Your task to perform on an android device: star an email in the gmail app Image 0: 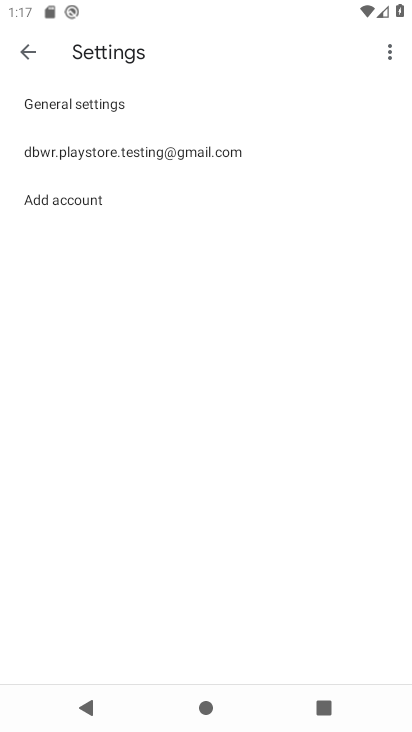
Step 0: press home button
Your task to perform on an android device: star an email in the gmail app Image 1: 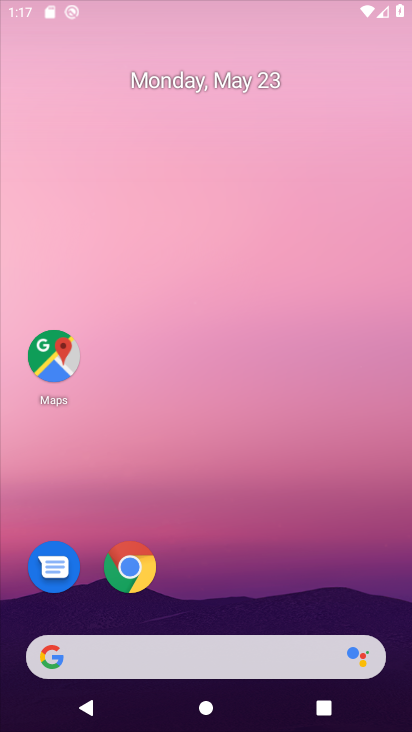
Step 1: drag from (268, 555) to (318, 207)
Your task to perform on an android device: star an email in the gmail app Image 2: 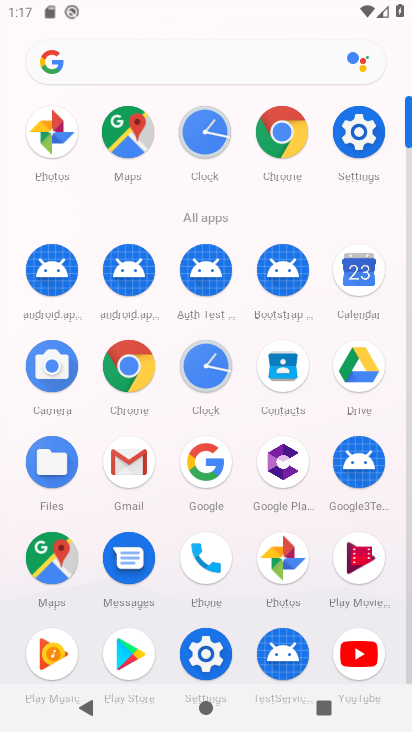
Step 2: click (129, 470)
Your task to perform on an android device: star an email in the gmail app Image 3: 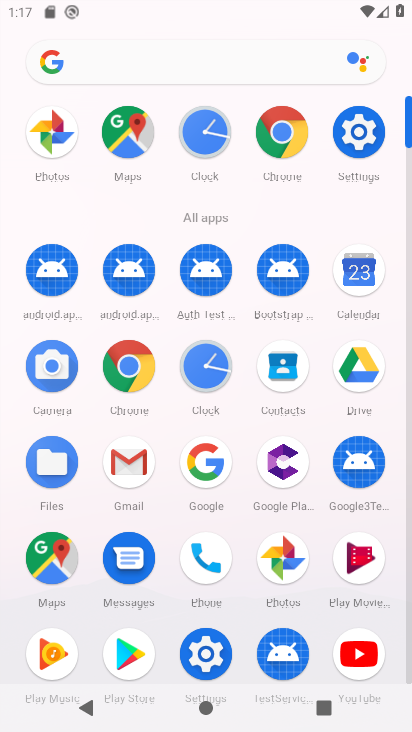
Step 3: click (129, 470)
Your task to perform on an android device: star an email in the gmail app Image 4: 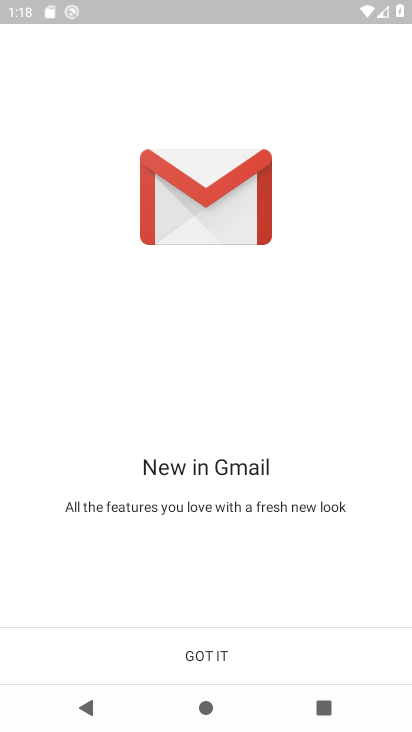
Step 4: click (209, 660)
Your task to perform on an android device: star an email in the gmail app Image 5: 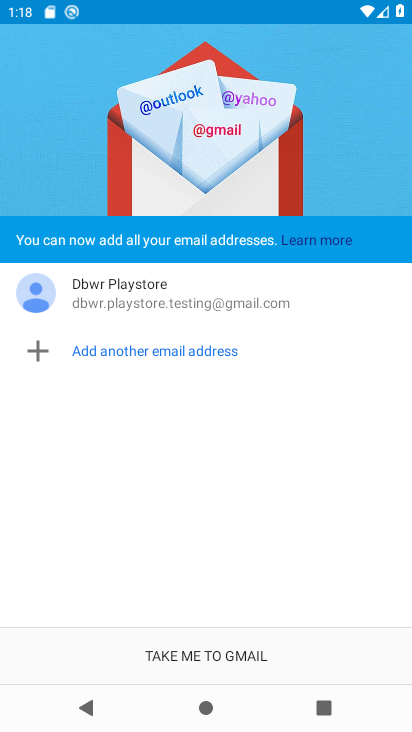
Step 5: click (195, 653)
Your task to perform on an android device: star an email in the gmail app Image 6: 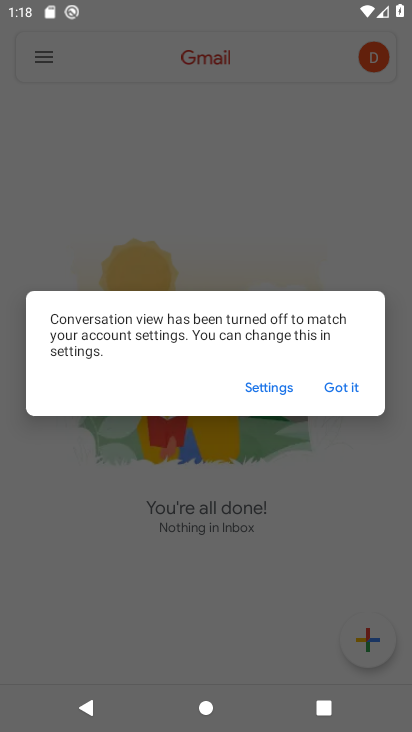
Step 6: click (327, 391)
Your task to perform on an android device: star an email in the gmail app Image 7: 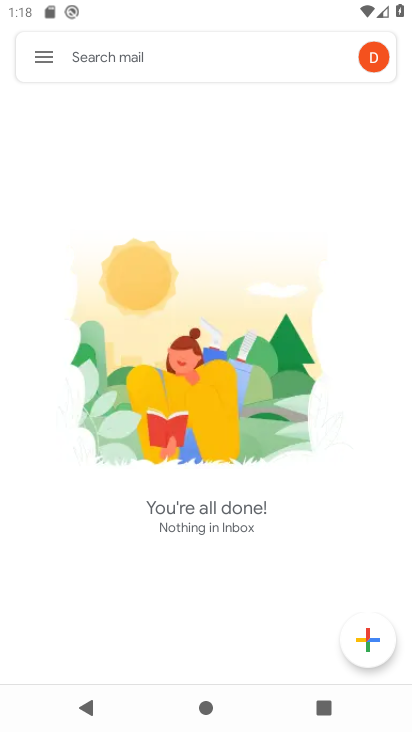
Step 7: click (59, 62)
Your task to perform on an android device: star an email in the gmail app Image 8: 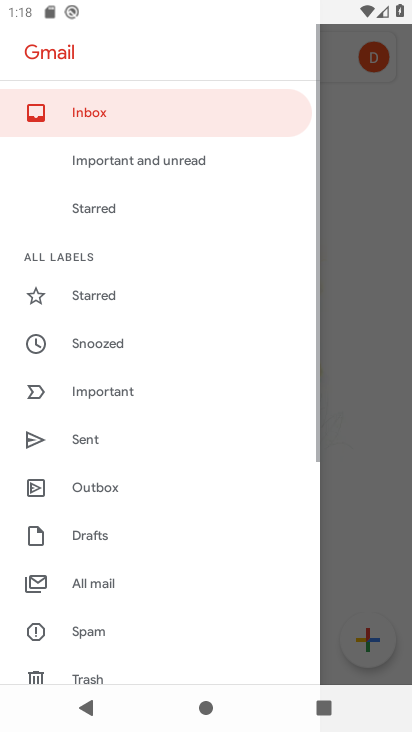
Step 8: click (140, 364)
Your task to perform on an android device: star an email in the gmail app Image 9: 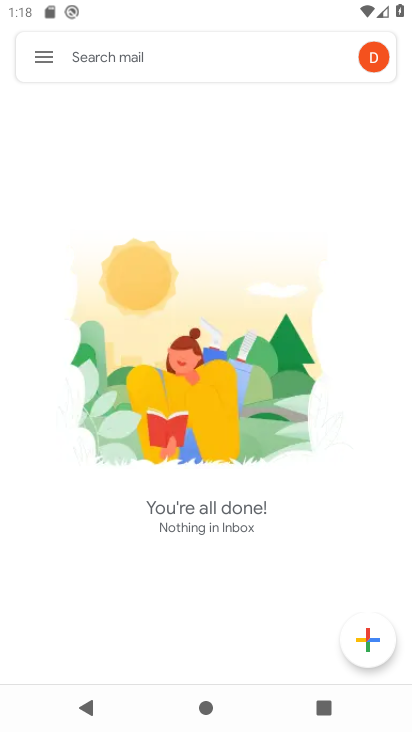
Step 9: click (92, 578)
Your task to perform on an android device: star an email in the gmail app Image 10: 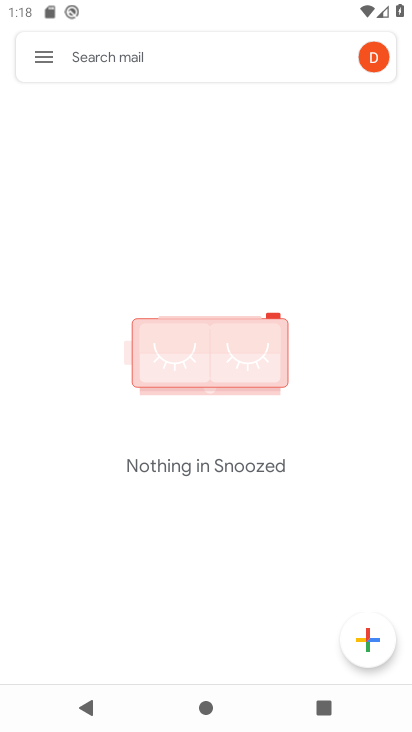
Step 10: task complete